Your task to perform on an android device: See recent photos Image 0: 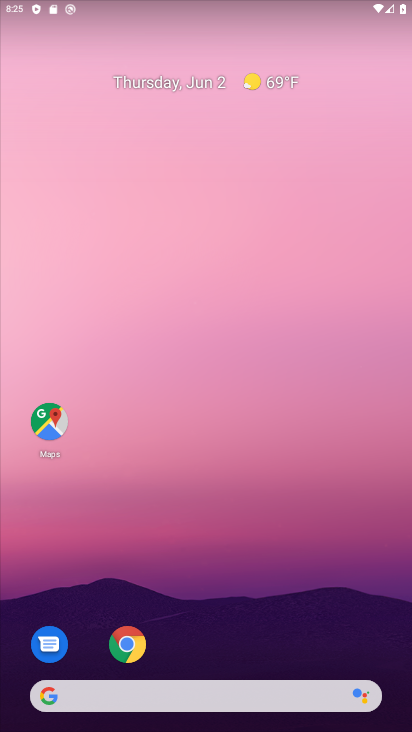
Step 0: drag from (233, 575) to (163, 25)
Your task to perform on an android device: See recent photos Image 1: 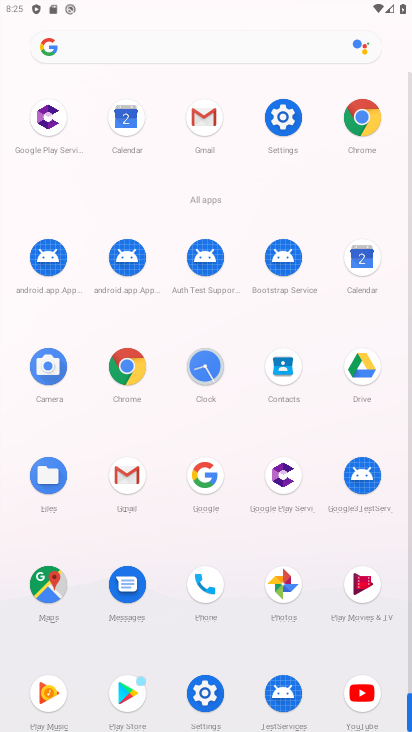
Step 1: click (282, 581)
Your task to perform on an android device: See recent photos Image 2: 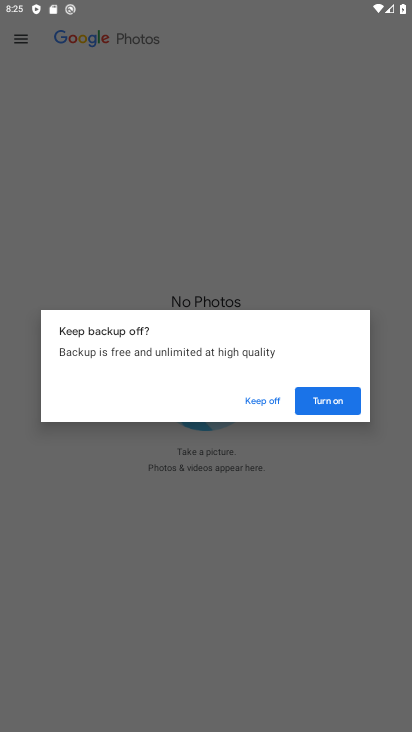
Step 2: click (328, 397)
Your task to perform on an android device: See recent photos Image 3: 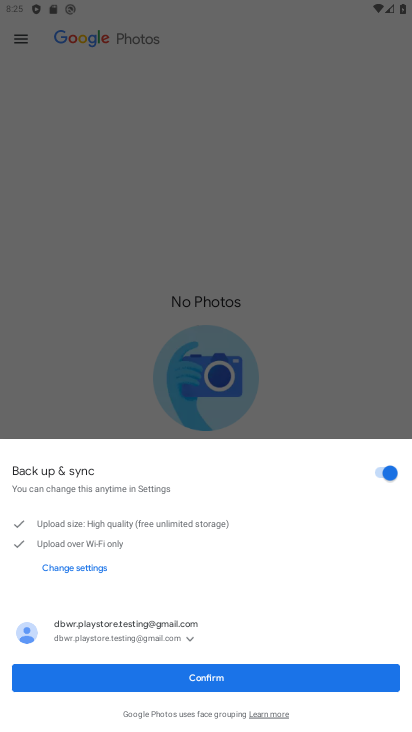
Step 3: click (256, 684)
Your task to perform on an android device: See recent photos Image 4: 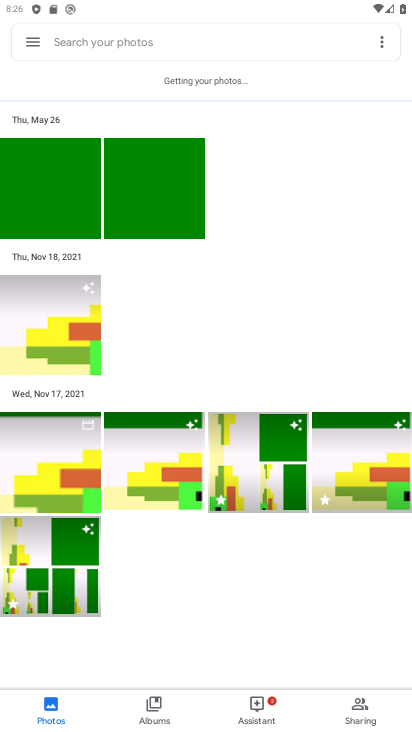
Step 4: task complete